Your task to perform on an android device: toggle improve location accuracy Image 0: 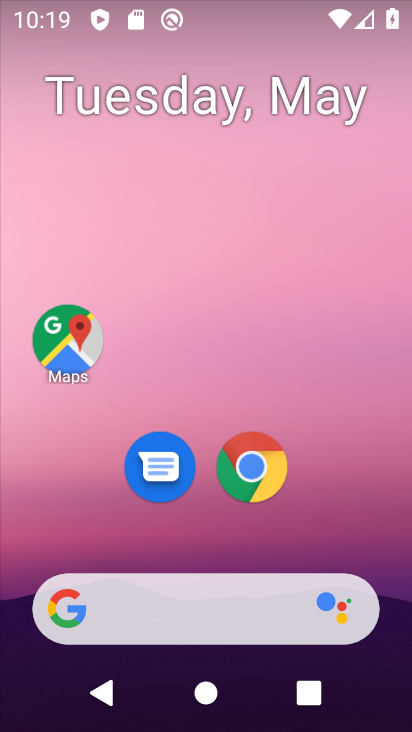
Step 0: drag from (202, 367) to (199, 32)
Your task to perform on an android device: toggle improve location accuracy Image 1: 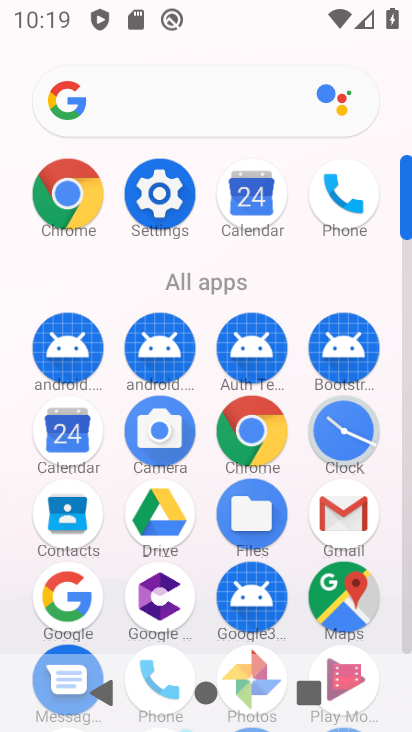
Step 1: click (157, 186)
Your task to perform on an android device: toggle improve location accuracy Image 2: 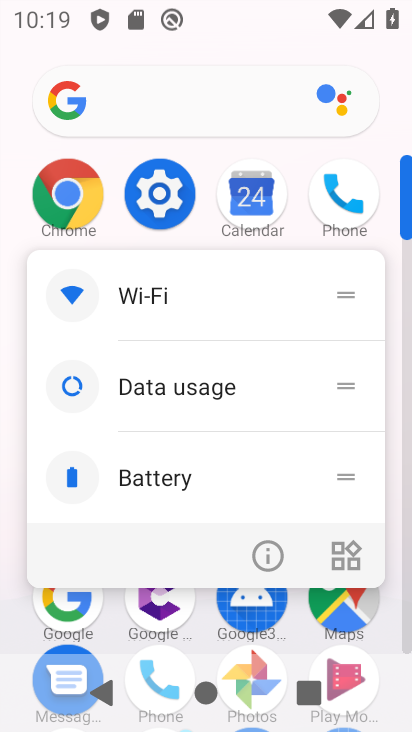
Step 2: click (272, 566)
Your task to perform on an android device: toggle improve location accuracy Image 3: 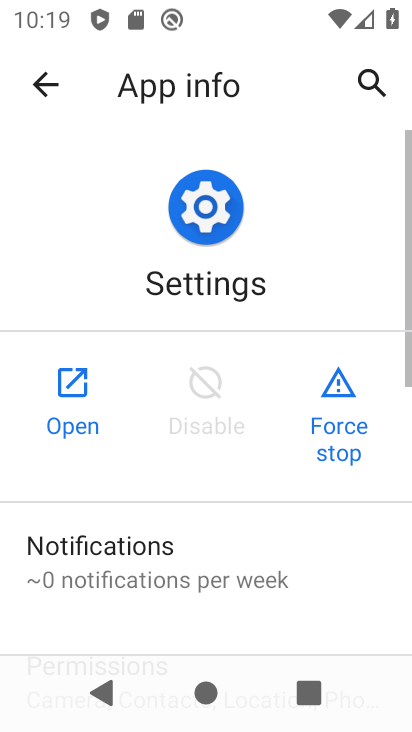
Step 3: click (77, 431)
Your task to perform on an android device: toggle improve location accuracy Image 4: 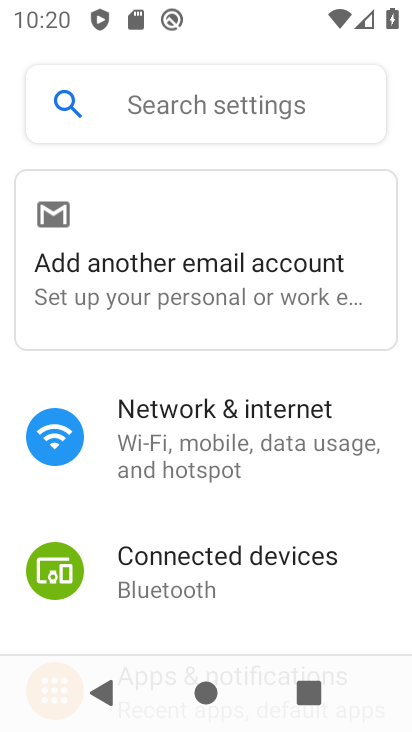
Step 4: drag from (237, 578) to (331, 39)
Your task to perform on an android device: toggle improve location accuracy Image 5: 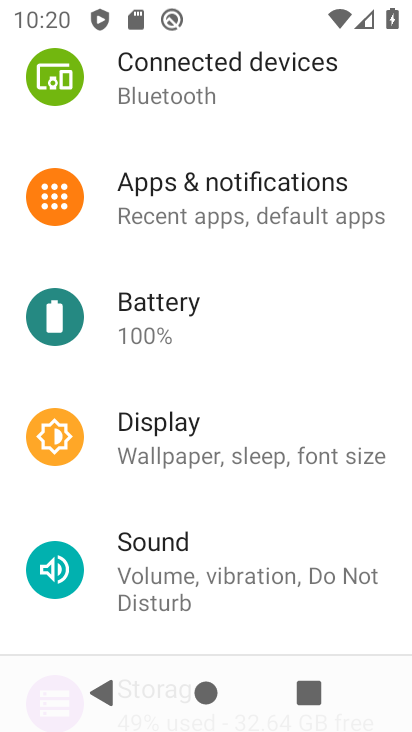
Step 5: drag from (236, 530) to (332, 53)
Your task to perform on an android device: toggle improve location accuracy Image 6: 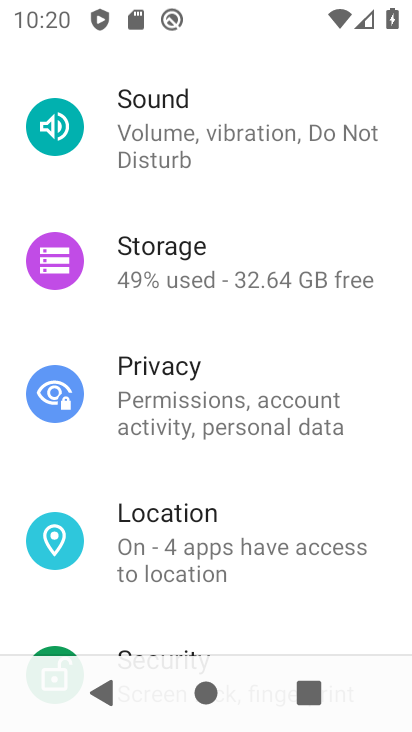
Step 6: click (199, 516)
Your task to perform on an android device: toggle improve location accuracy Image 7: 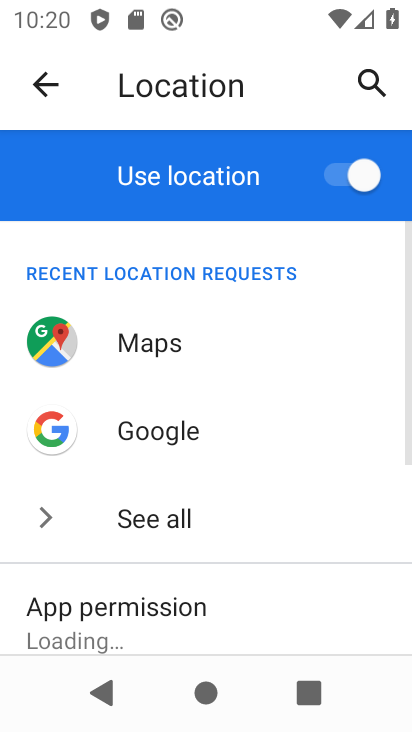
Step 7: drag from (197, 526) to (275, 96)
Your task to perform on an android device: toggle improve location accuracy Image 8: 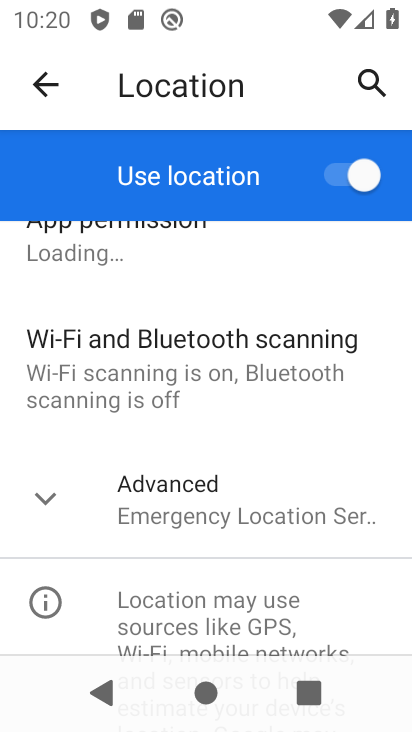
Step 8: click (179, 501)
Your task to perform on an android device: toggle improve location accuracy Image 9: 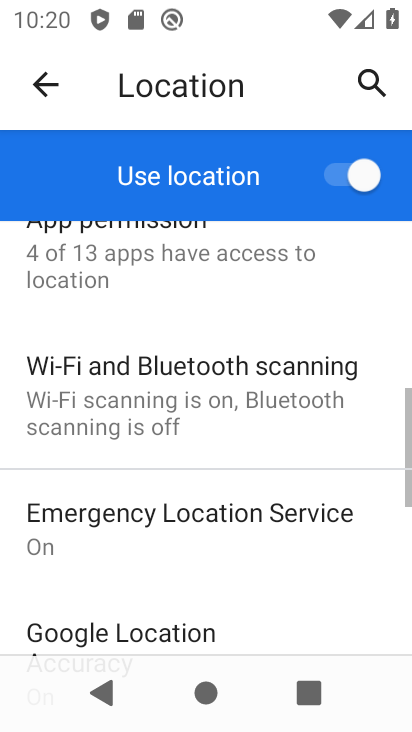
Step 9: drag from (161, 557) to (228, 172)
Your task to perform on an android device: toggle improve location accuracy Image 10: 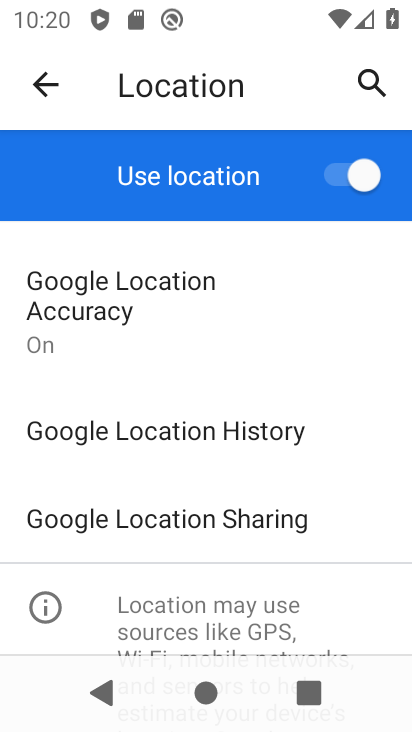
Step 10: click (155, 316)
Your task to perform on an android device: toggle improve location accuracy Image 11: 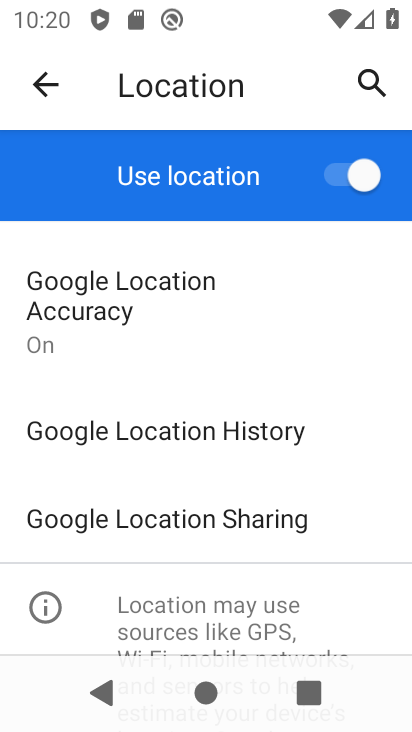
Step 11: click (154, 315)
Your task to perform on an android device: toggle improve location accuracy Image 12: 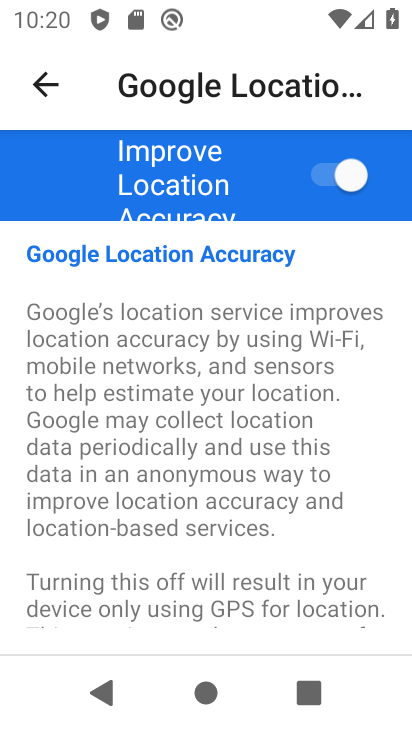
Step 12: click (352, 164)
Your task to perform on an android device: toggle improve location accuracy Image 13: 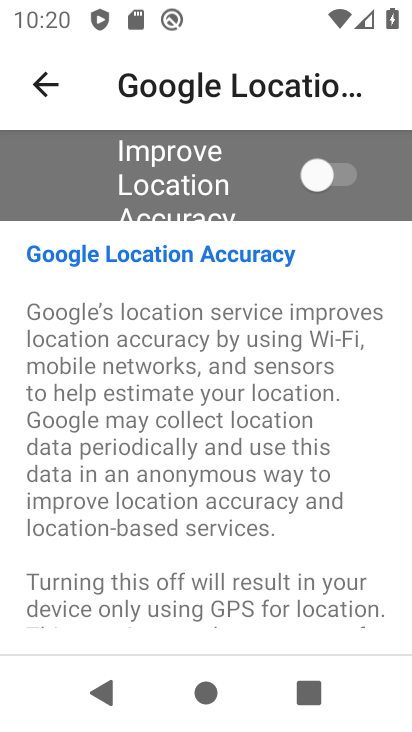
Step 13: task complete